Your task to perform on an android device: open device folders in google photos Image 0: 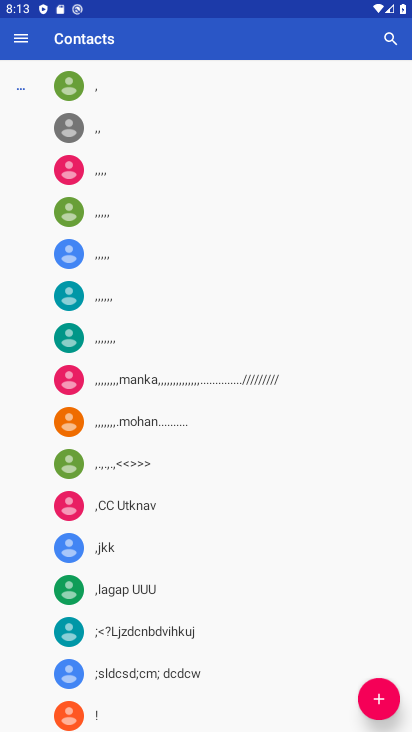
Step 0: press home button
Your task to perform on an android device: open device folders in google photos Image 1: 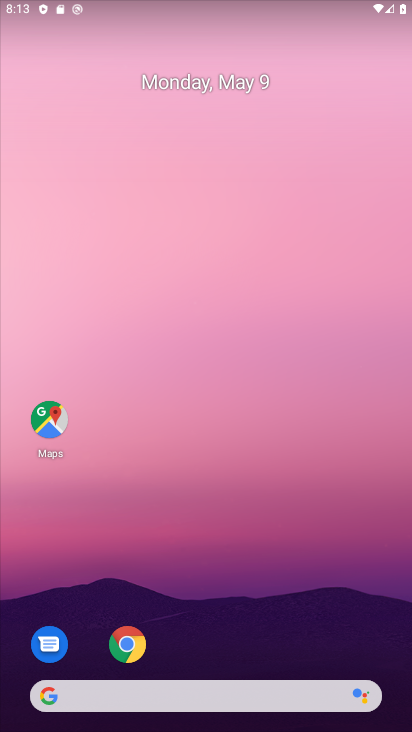
Step 1: drag from (169, 559) to (210, 214)
Your task to perform on an android device: open device folders in google photos Image 2: 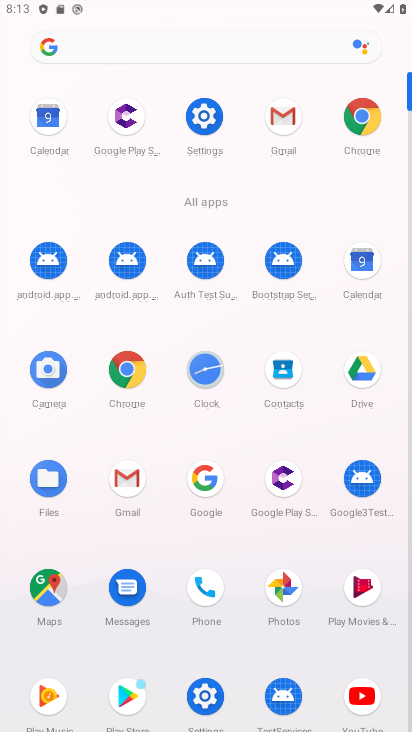
Step 2: click (286, 593)
Your task to perform on an android device: open device folders in google photos Image 3: 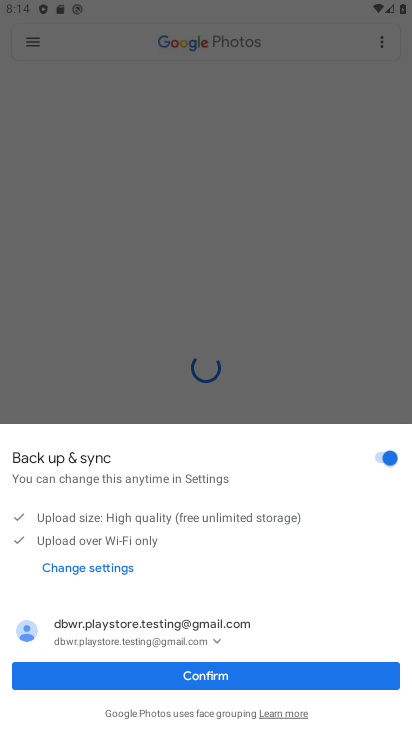
Step 3: click (272, 684)
Your task to perform on an android device: open device folders in google photos Image 4: 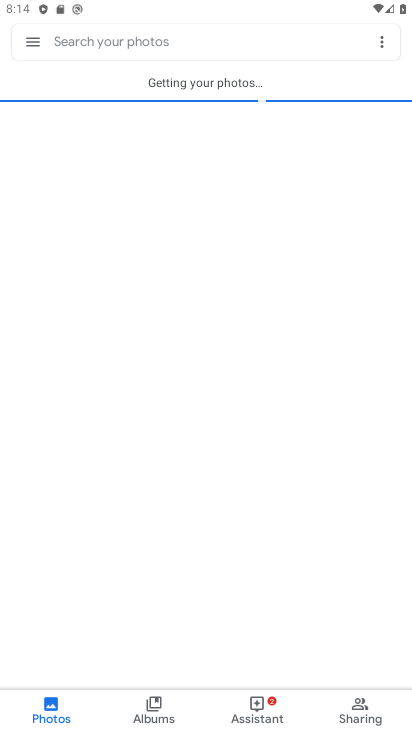
Step 4: click (29, 41)
Your task to perform on an android device: open device folders in google photos Image 5: 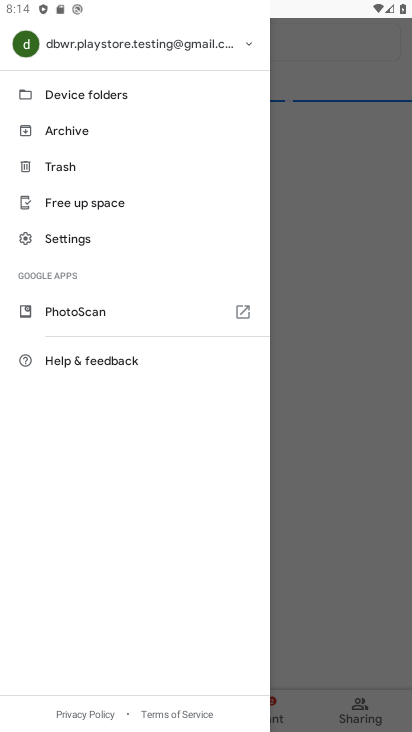
Step 5: click (70, 99)
Your task to perform on an android device: open device folders in google photos Image 6: 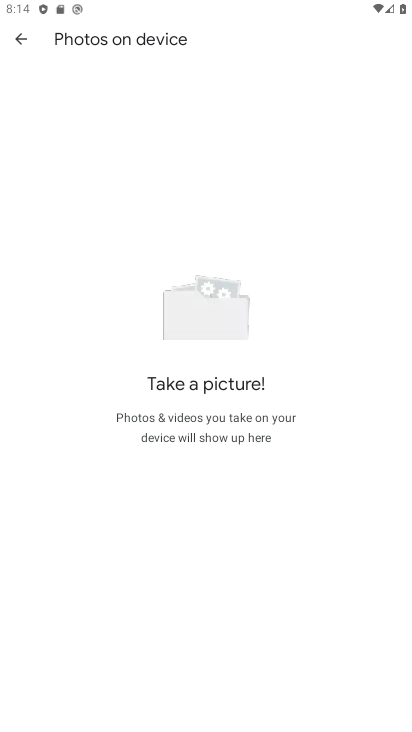
Step 6: task complete